Your task to perform on an android device: toggle location history Image 0: 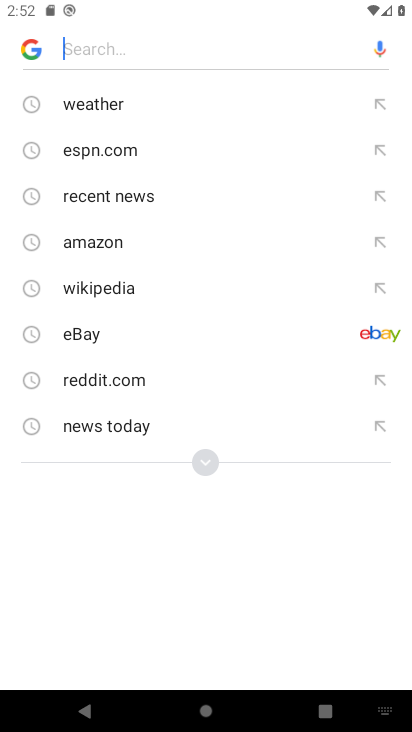
Step 0: press home button
Your task to perform on an android device: toggle location history Image 1: 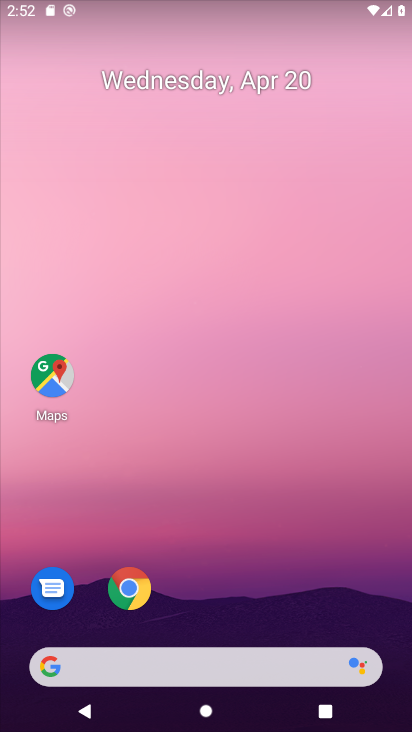
Step 1: drag from (361, 588) to (347, 181)
Your task to perform on an android device: toggle location history Image 2: 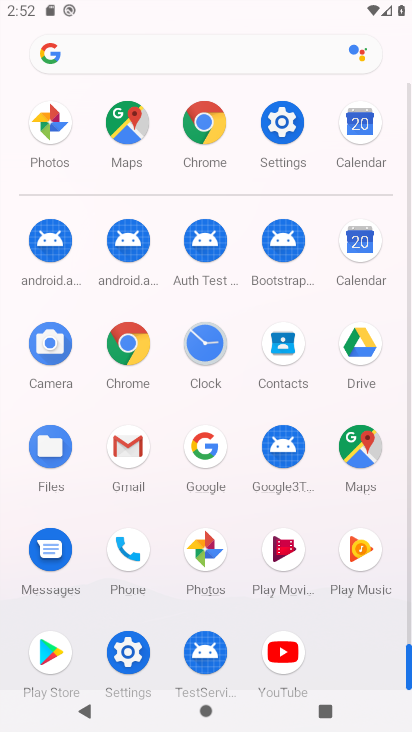
Step 2: click (288, 133)
Your task to perform on an android device: toggle location history Image 3: 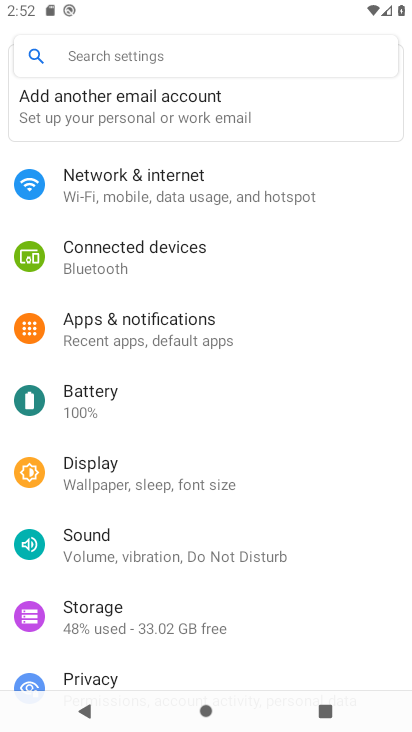
Step 3: drag from (364, 491) to (363, 381)
Your task to perform on an android device: toggle location history Image 4: 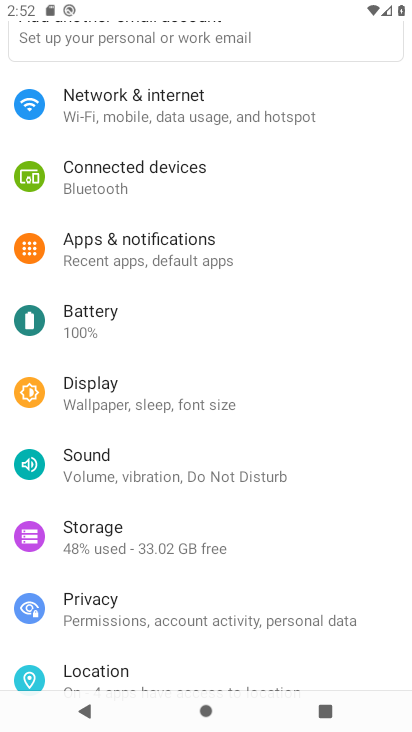
Step 4: drag from (355, 521) to (357, 370)
Your task to perform on an android device: toggle location history Image 5: 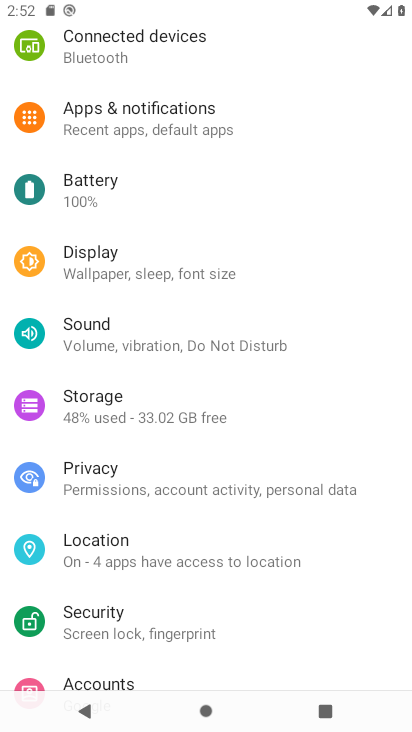
Step 5: drag from (355, 550) to (350, 370)
Your task to perform on an android device: toggle location history Image 6: 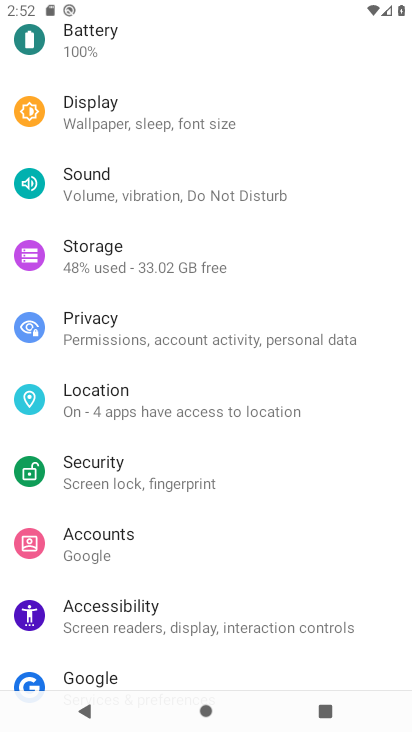
Step 6: drag from (343, 523) to (349, 381)
Your task to perform on an android device: toggle location history Image 7: 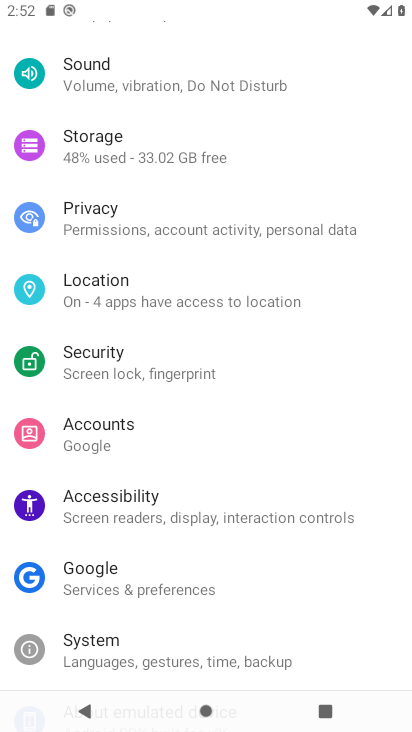
Step 7: drag from (343, 591) to (370, 359)
Your task to perform on an android device: toggle location history Image 8: 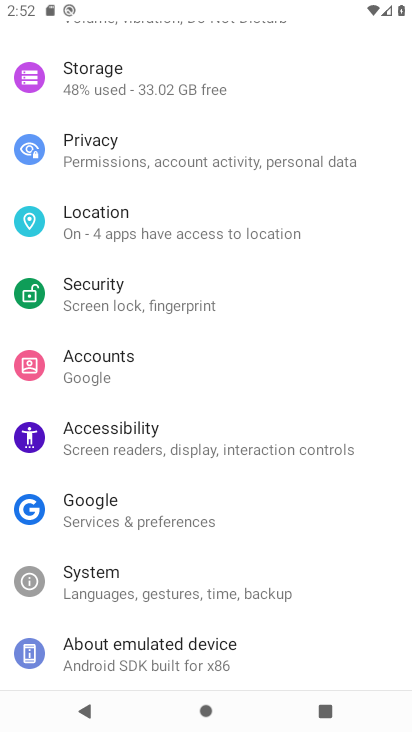
Step 8: click (230, 227)
Your task to perform on an android device: toggle location history Image 9: 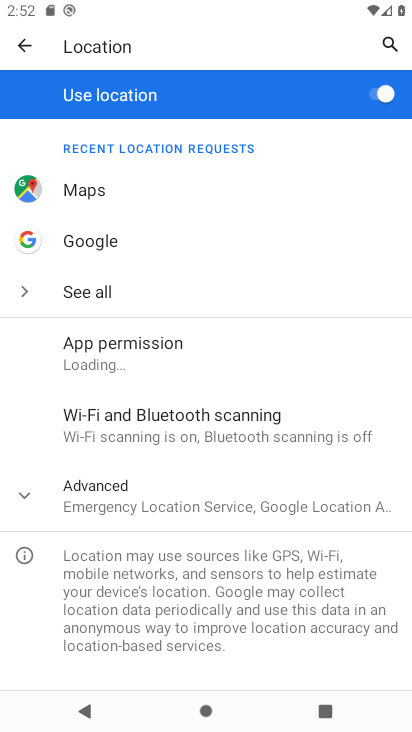
Step 9: click (300, 487)
Your task to perform on an android device: toggle location history Image 10: 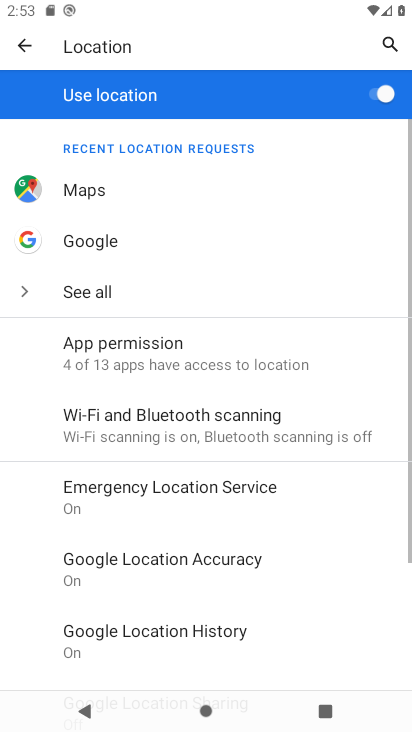
Step 10: drag from (321, 604) to (323, 429)
Your task to perform on an android device: toggle location history Image 11: 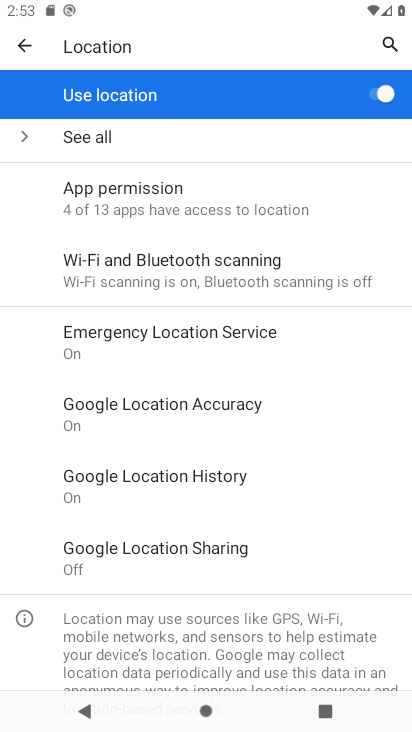
Step 11: drag from (339, 526) to (340, 407)
Your task to perform on an android device: toggle location history Image 12: 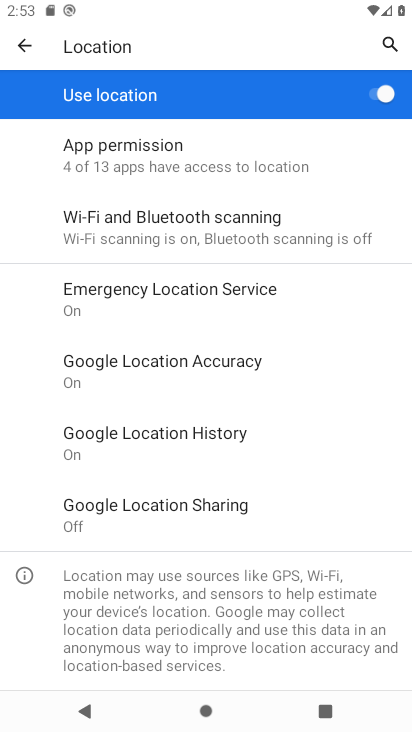
Step 12: click (222, 427)
Your task to perform on an android device: toggle location history Image 13: 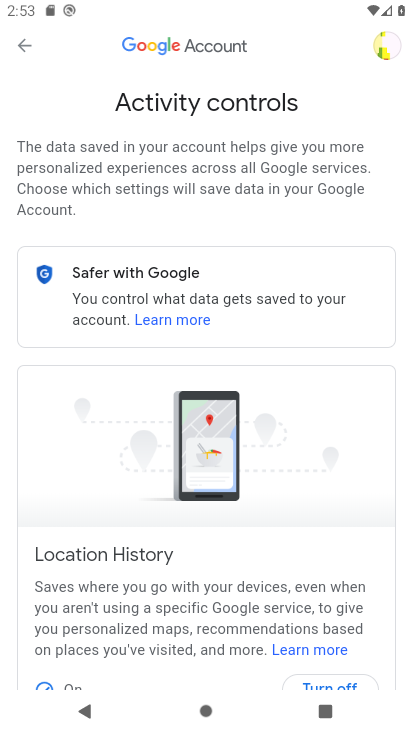
Step 13: drag from (282, 563) to (258, 376)
Your task to perform on an android device: toggle location history Image 14: 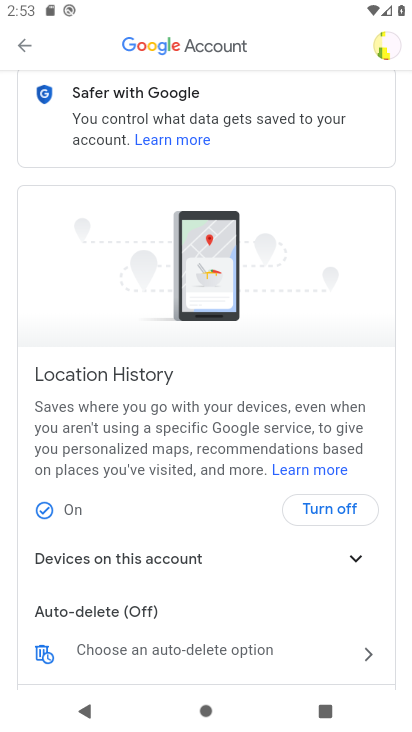
Step 14: click (313, 509)
Your task to perform on an android device: toggle location history Image 15: 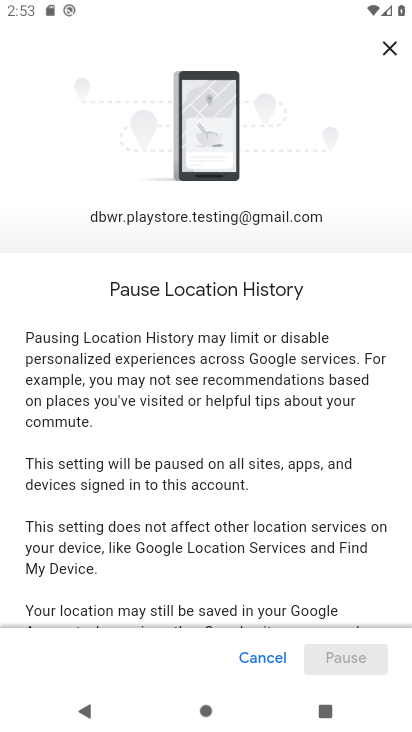
Step 15: drag from (275, 518) to (278, 390)
Your task to perform on an android device: toggle location history Image 16: 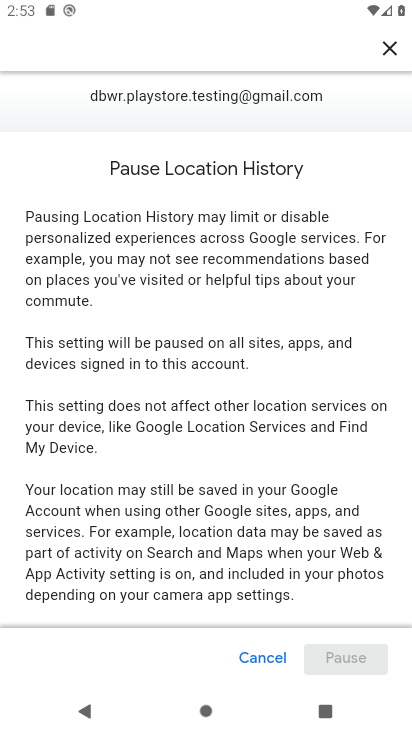
Step 16: drag from (270, 534) to (270, 392)
Your task to perform on an android device: toggle location history Image 17: 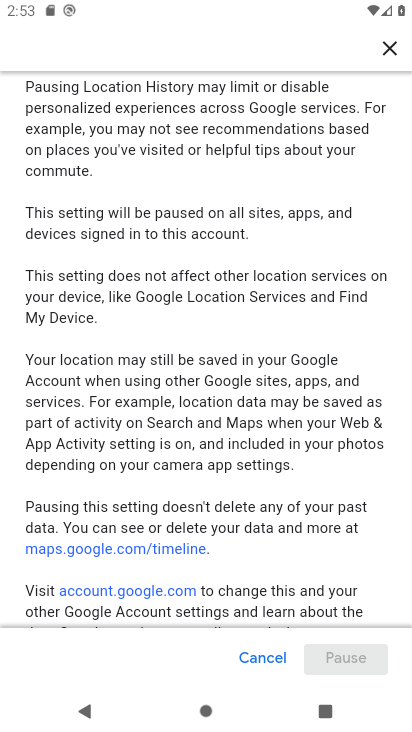
Step 17: drag from (270, 483) to (286, 387)
Your task to perform on an android device: toggle location history Image 18: 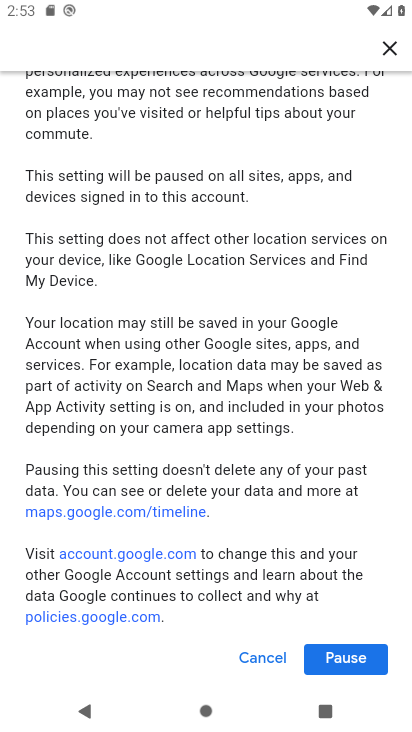
Step 18: click (348, 653)
Your task to perform on an android device: toggle location history Image 19: 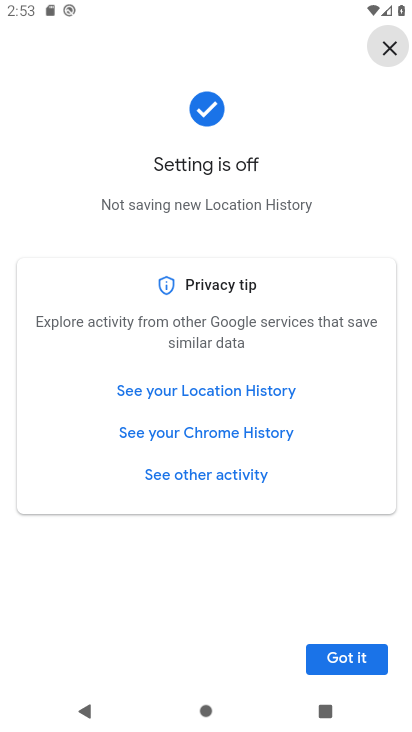
Step 19: task complete